Your task to perform on an android device: Do I have any events tomorrow? Image 0: 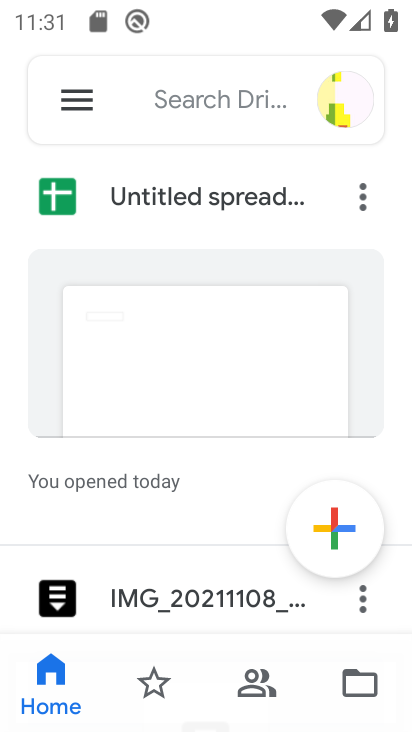
Step 0: press home button
Your task to perform on an android device: Do I have any events tomorrow? Image 1: 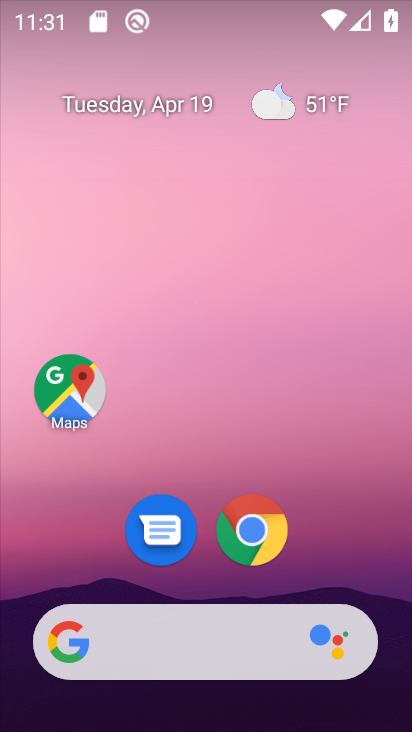
Step 1: drag from (270, 370) to (328, 54)
Your task to perform on an android device: Do I have any events tomorrow? Image 2: 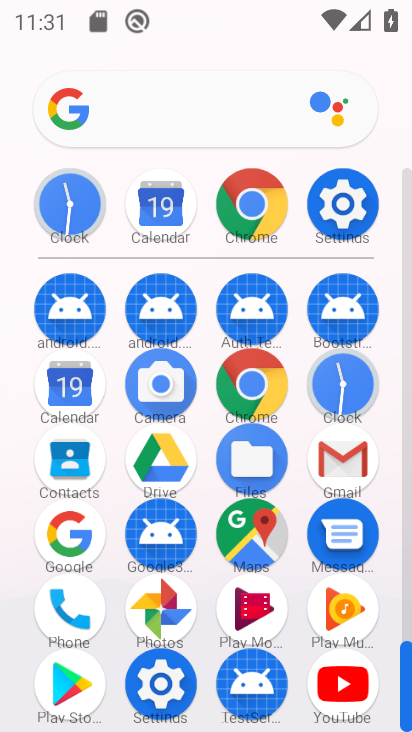
Step 2: click (154, 201)
Your task to perform on an android device: Do I have any events tomorrow? Image 3: 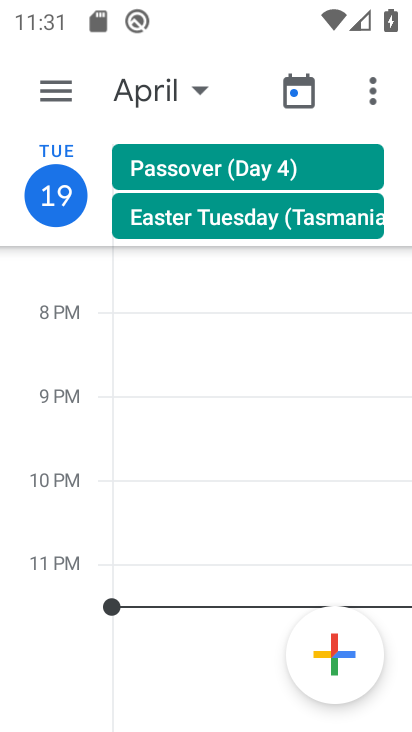
Step 3: click (152, 85)
Your task to perform on an android device: Do I have any events tomorrow? Image 4: 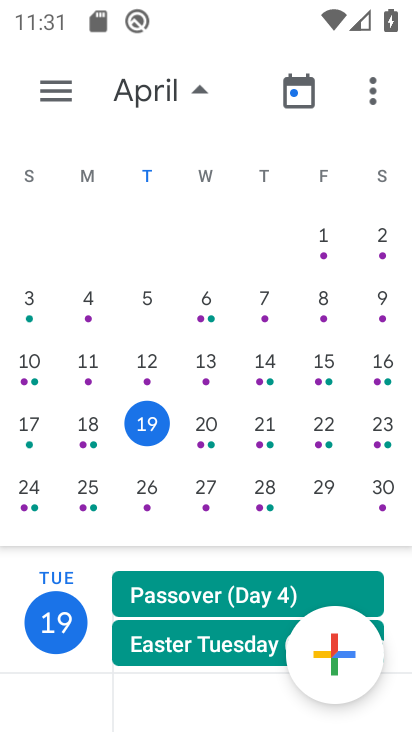
Step 4: click (208, 427)
Your task to perform on an android device: Do I have any events tomorrow? Image 5: 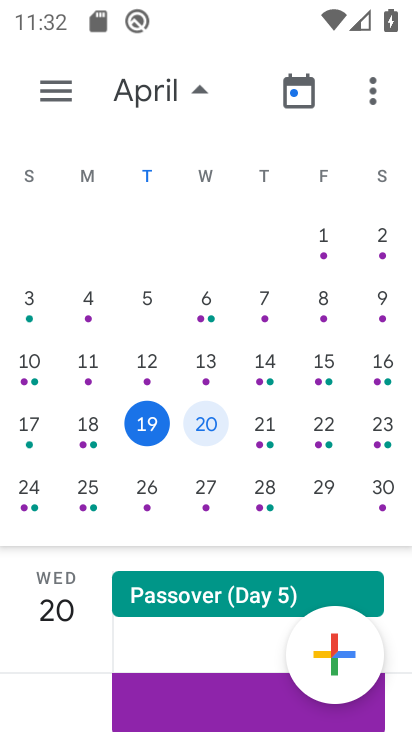
Step 5: click (62, 88)
Your task to perform on an android device: Do I have any events tomorrow? Image 6: 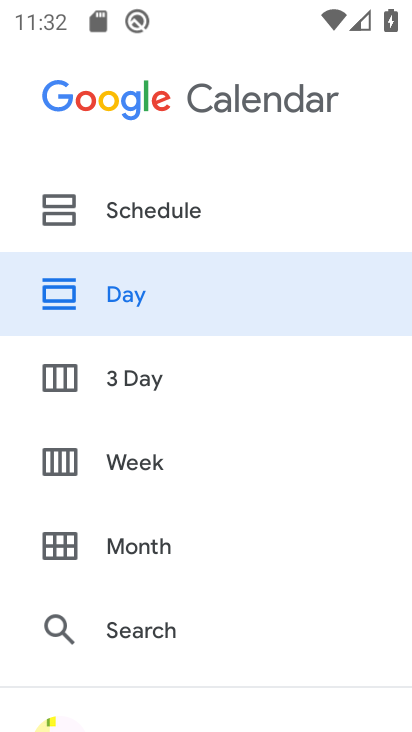
Step 6: click (139, 210)
Your task to perform on an android device: Do I have any events tomorrow? Image 7: 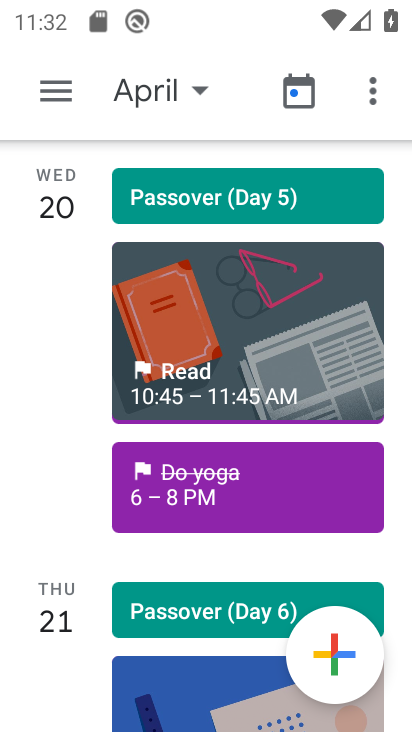
Step 7: click (225, 486)
Your task to perform on an android device: Do I have any events tomorrow? Image 8: 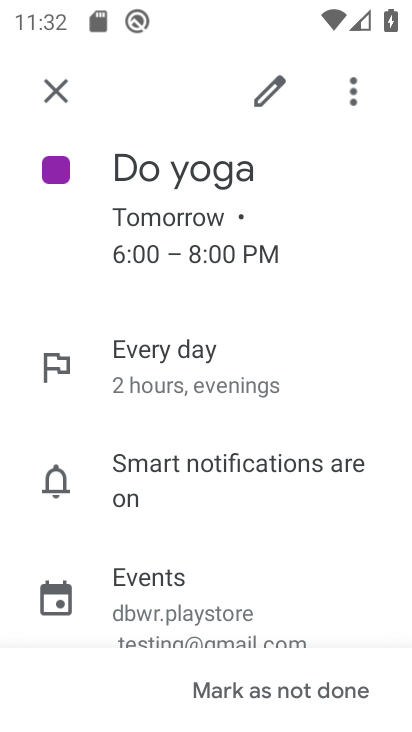
Step 8: task complete